Your task to perform on an android device: change the clock style Image 0: 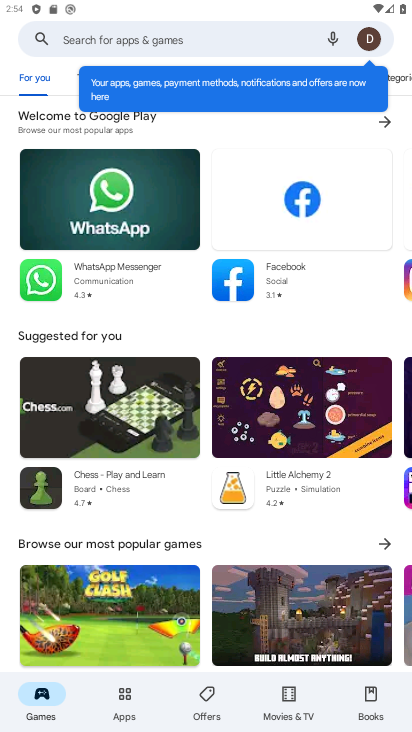
Step 0: press home button
Your task to perform on an android device: change the clock style Image 1: 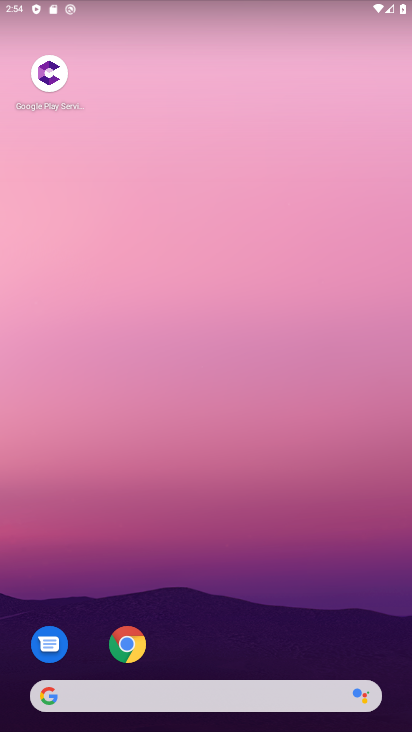
Step 1: drag from (253, 619) to (169, 80)
Your task to perform on an android device: change the clock style Image 2: 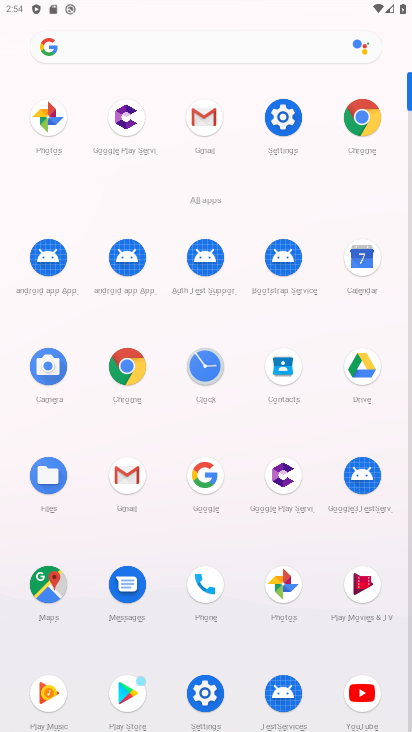
Step 2: click (197, 394)
Your task to perform on an android device: change the clock style Image 3: 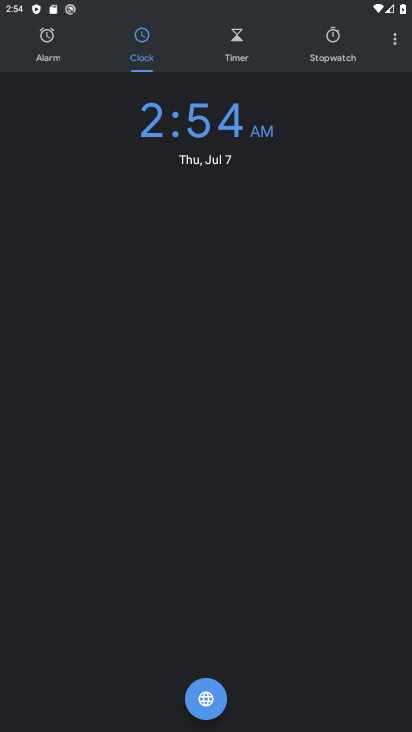
Step 3: click (395, 37)
Your task to perform on an android device: change the clock style Image 4: 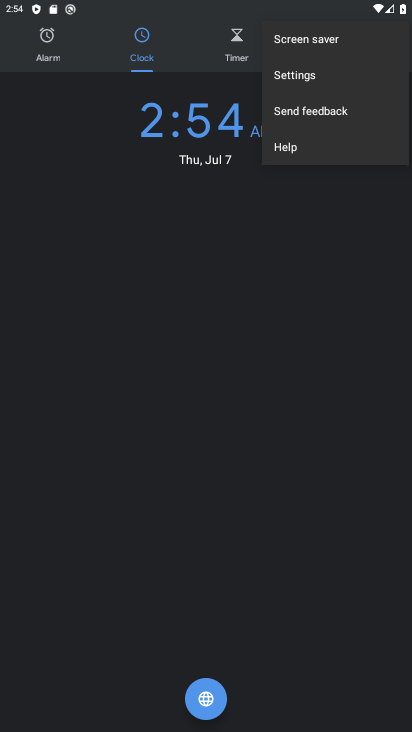
Step 4: click (327, 70)
Your task to perform on an android device: change the clock style Image 5: 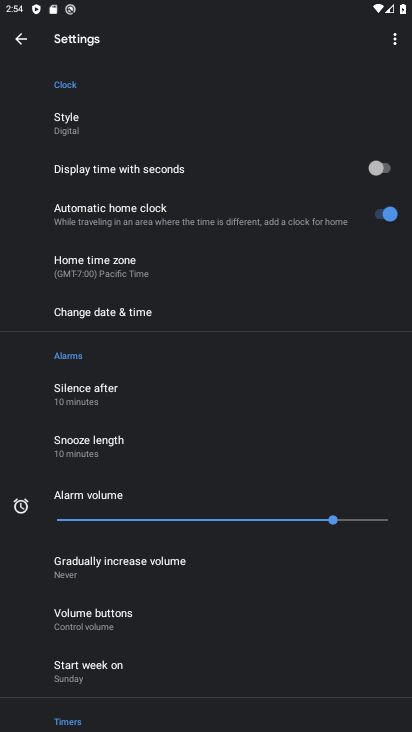
Step 5: click (143, 125)
Your task to perform on an android device: change the clock style Image 6: 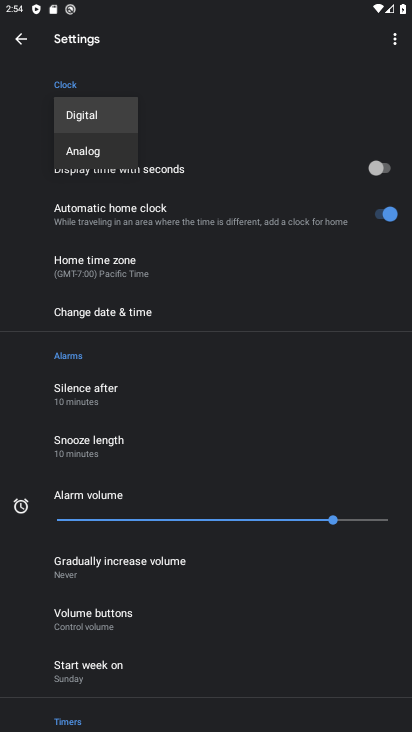
Step 6: click (93, 146)
Your task to perform on an android device: change the clock style Image 7: 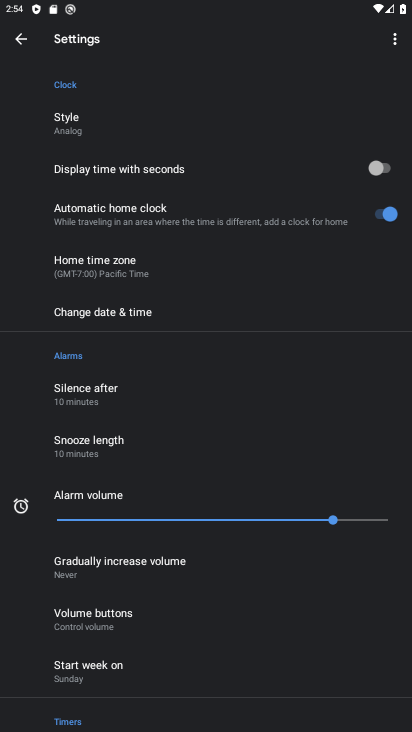
Step 7: task complete